Your task to perform on an android device: Open CNN.com Image 0: 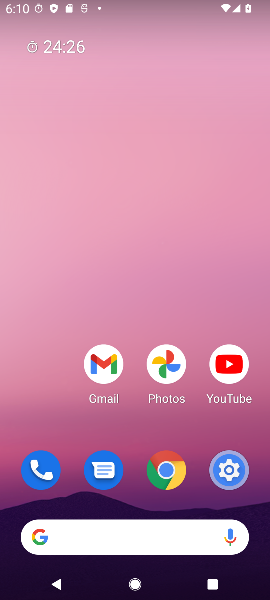
Step 0: click (161, 468)
Your task to perform on an android device: Open CNN.com Image 1: 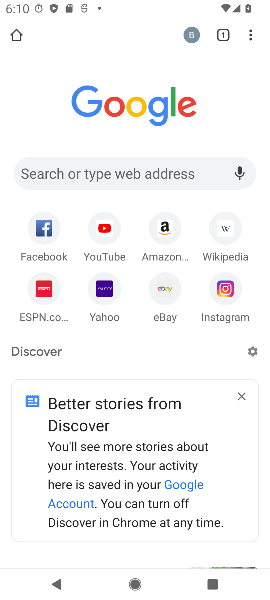
Step 1: click (161, 170)
Your task to perform on an android device: Open CNN.com Image 2: 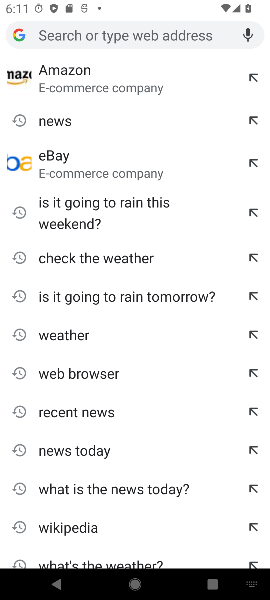
Step 2: type " CNN.com"
Your task to perform on an android device: Open CNN.com Image 3: 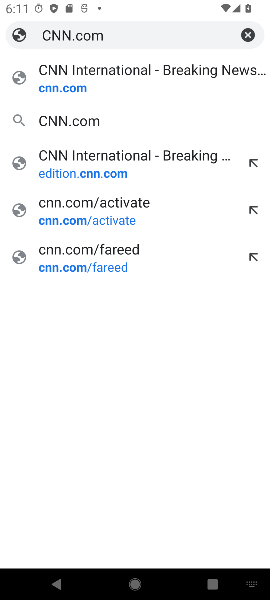
Step 3: click (60, 87)
Your task to perform on an android device: Open CNN.com Image 4: 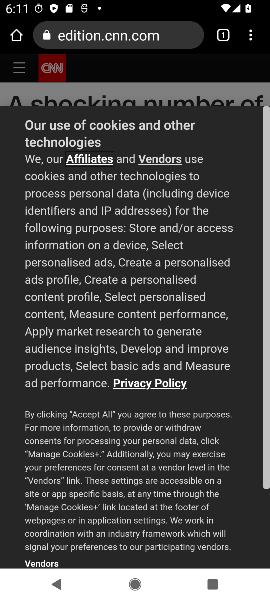
Step 4: drag from (180, 503) to (198, 139)
Your task to perform on an android device: Open CNN.com Image 5: 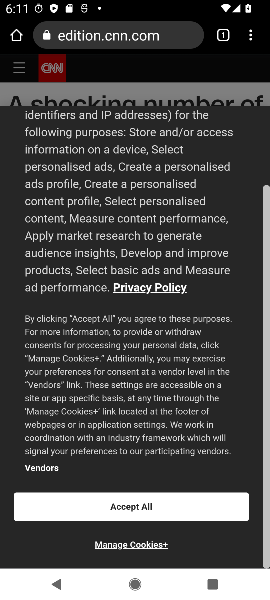
Step 5: click (159, 504)
Your task to perform on an android device: Open CNN.com Image 6: 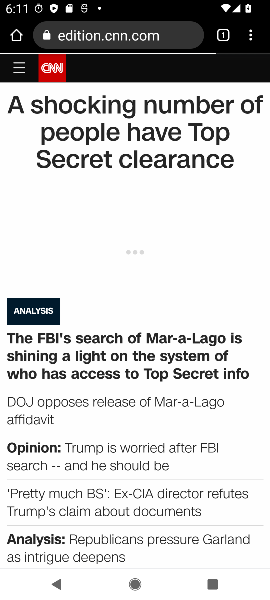
Step 6: task complete